Your task to perform on an android device: Open the phone app and click the voicemail tab. Image 0: 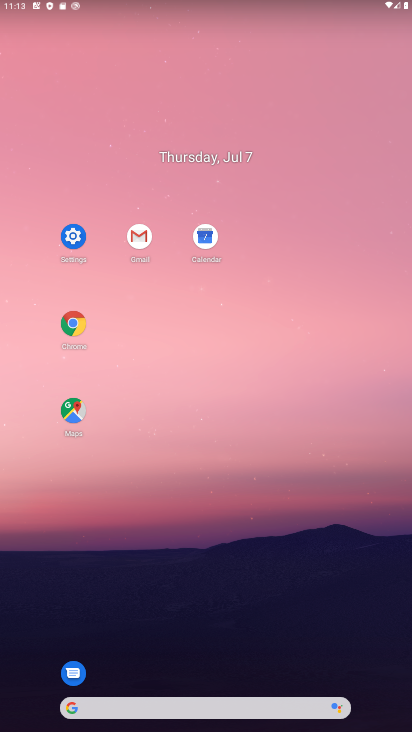
Step 0: drag from (214, 632) to (278, 216)
Your task to perform on an android device: Open the phone app and click the voicemail tab. Image 1: 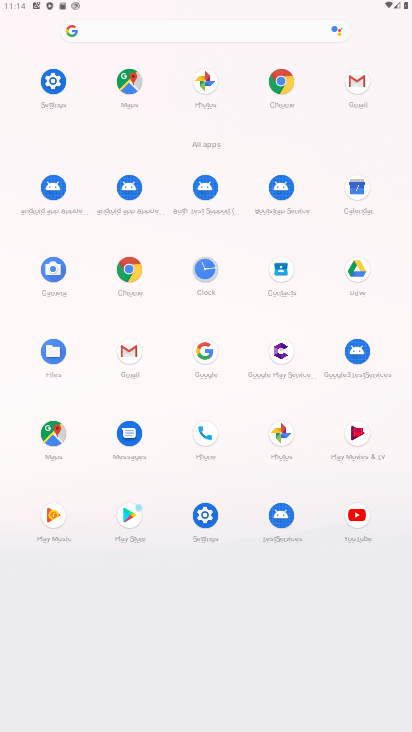
Step 1: click (202, 438)
Your task to perform on an android device: Open the phone app and click the voicemail tab. Image 2: 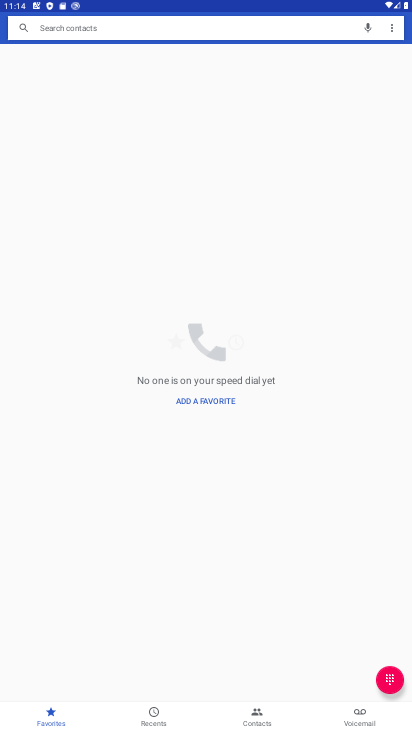
Step 2: click (353, 712)
Your task to perform on an android device: Open the phone app and click the voicemail tab. Image 3: 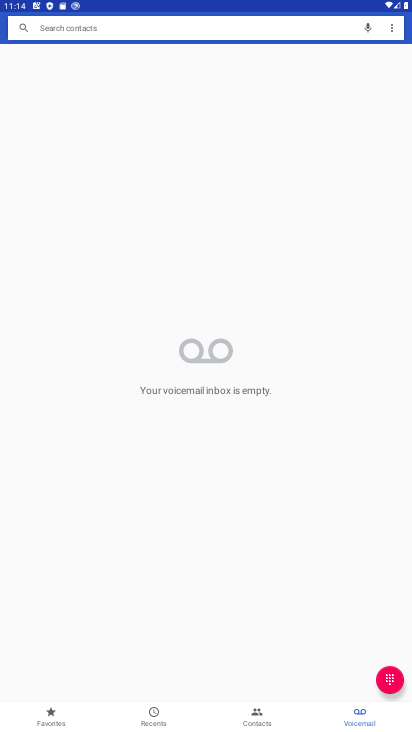
Step 3: click (346, 716)
Your task to perform on an android device: Open the phone app and click the voicemail tab. Image 4: 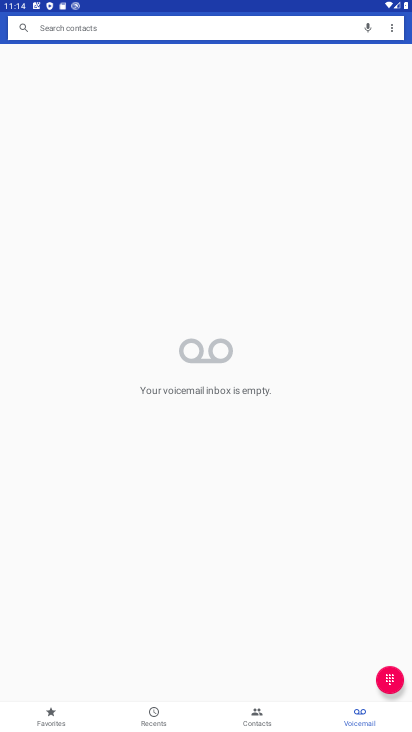
Step 4: task complete